Your task to perform on an android device: Open Wikipedia Image 0: 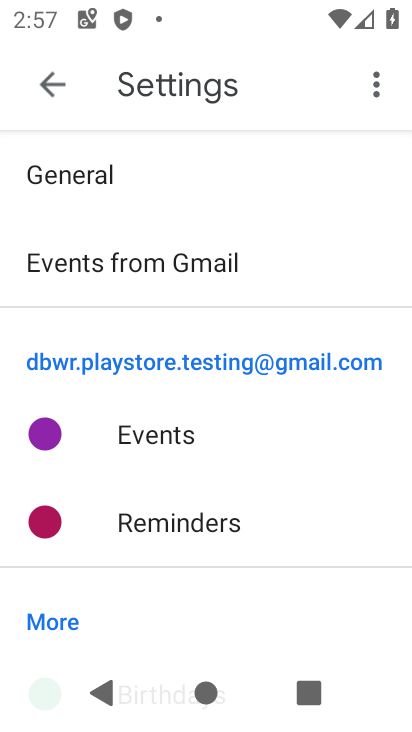
Step 0: press home button
Your task to perform on an android device: Open Wikipedia Image 1: 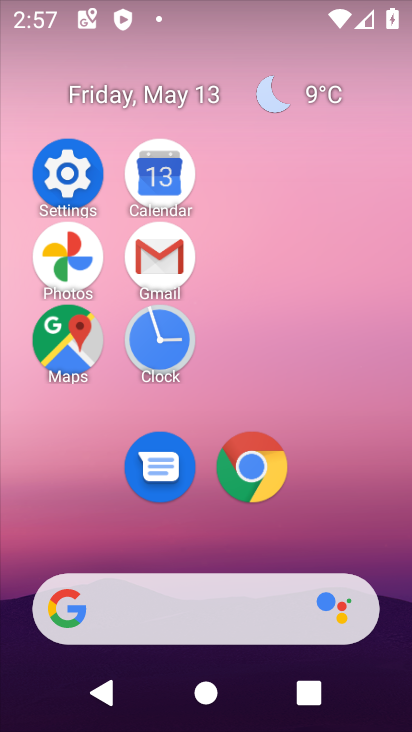
Step 1: click (158, 244)
Your task to perform on an android device: Open Wikipedia Image 2: 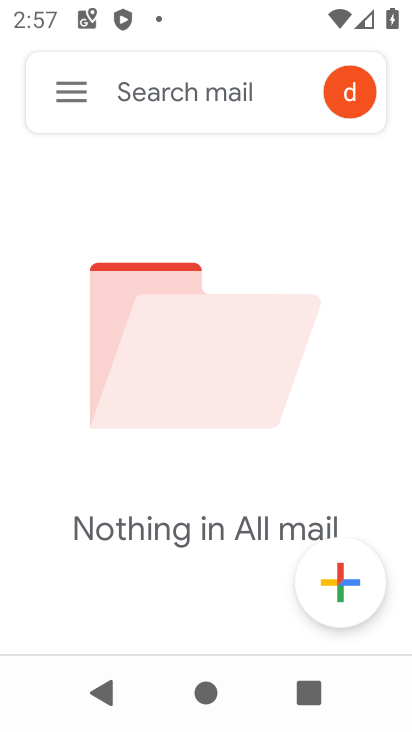
Step 2: press home button
Your task to perform on an android device: Open Wikipedia Image 3: 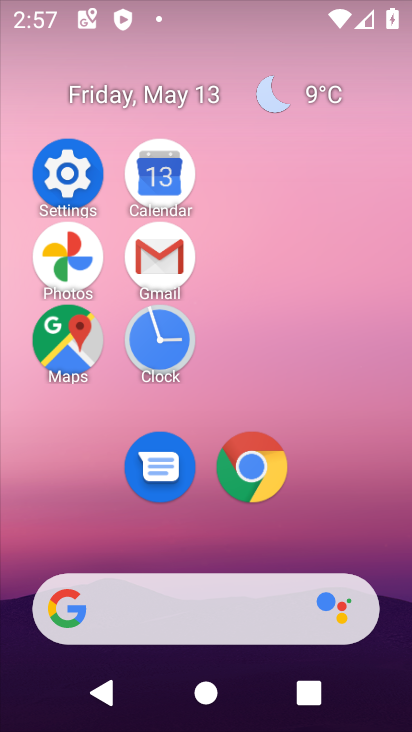
Step 3: click (250, 488)
Your task to perform on an android device: Open Wikipedia Image 4: 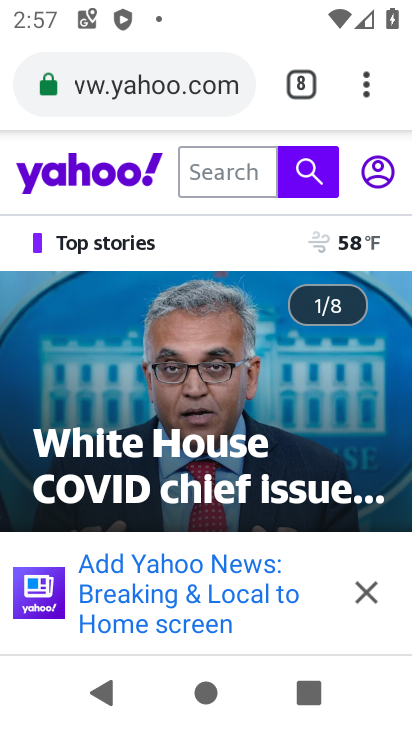
Step 4: click (294, 81)
Your task to perform on an android device: Open Wikipedia Image 5: 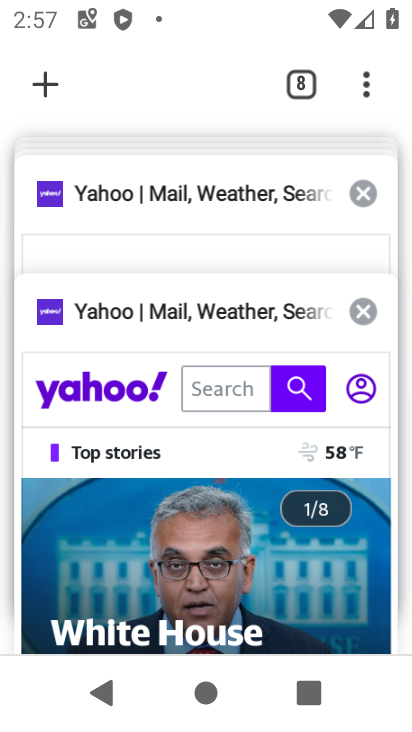
Step 5: drag from (228, 202) to (175, 492)
Your task to perform on an android device: Open Wikipedia Image 6: 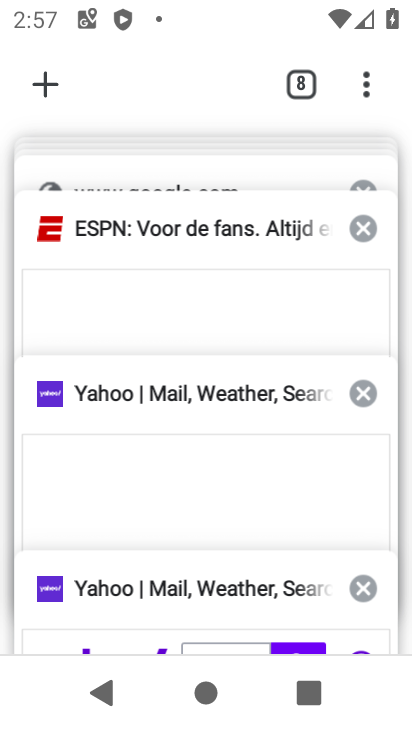
Step 6: drag from (234, 156) to (191, 498)
Your task to perform on an android device: Open Wikipedia Image 7: 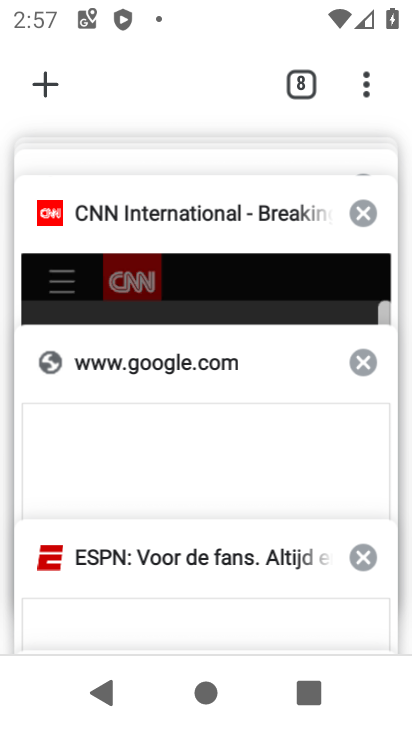
Step 7: drag from (242, 162) to (165, 576)
Your task to perform on an android device: Open Wikipedia Image 8: 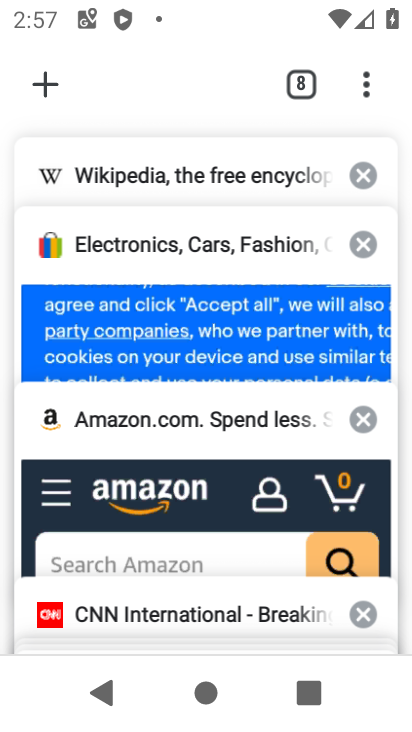
Step 8: click (204, 189)
Your task to perform on an android device: Open Wikipedia Image 9: 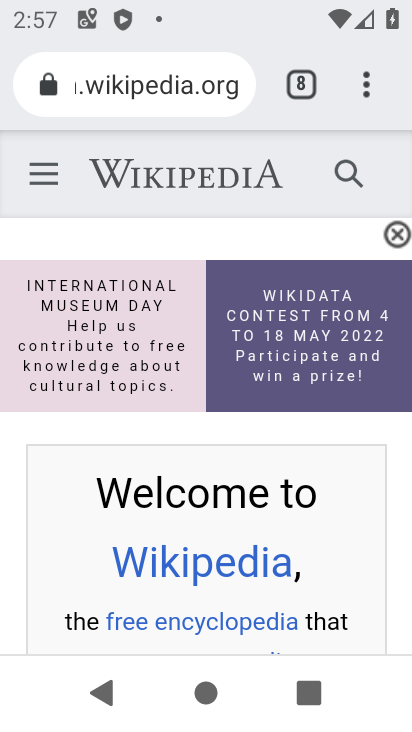
Step 9: task complete